Your task to perform on an android device: toggle translation in the chrome app Image 0: 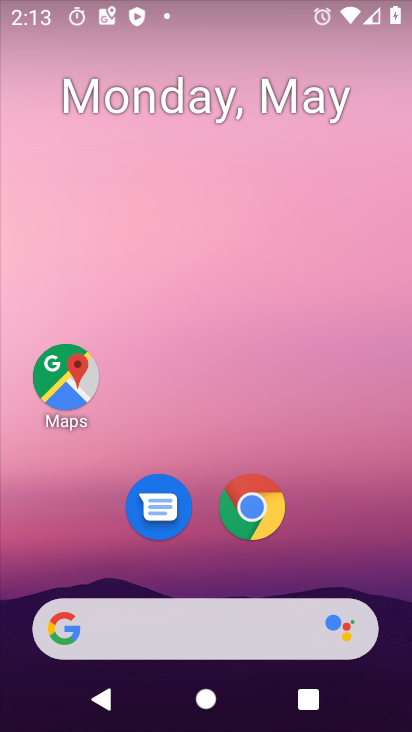
Step 0: click (250, 507)
Your task to perform on an android device: toggle translation in the chrome app Image 1: 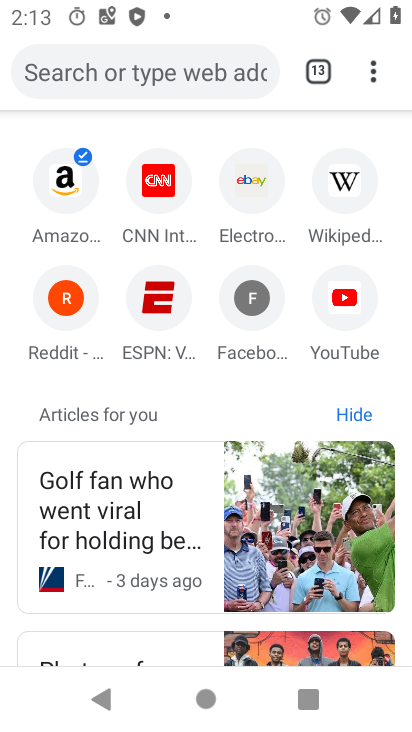
Step 1: click (374, 78)
Your task to perform on an android device: toggle translation in the chrome app Image 2: 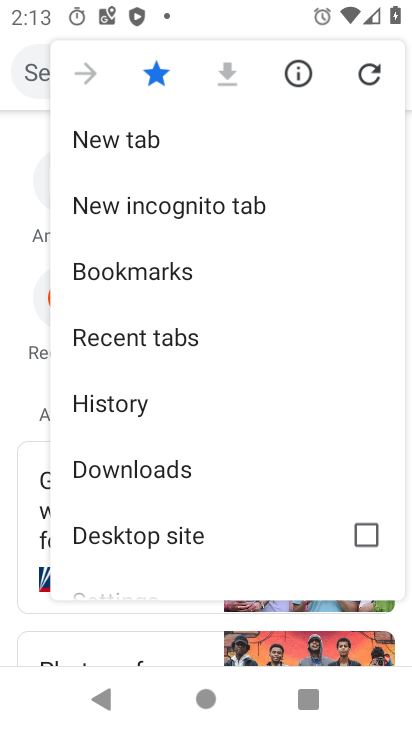
Step 2: drag from (128, 556) to (135, 71)
Your task to perform on an android device: toggle translation in the chrome app Image 3: 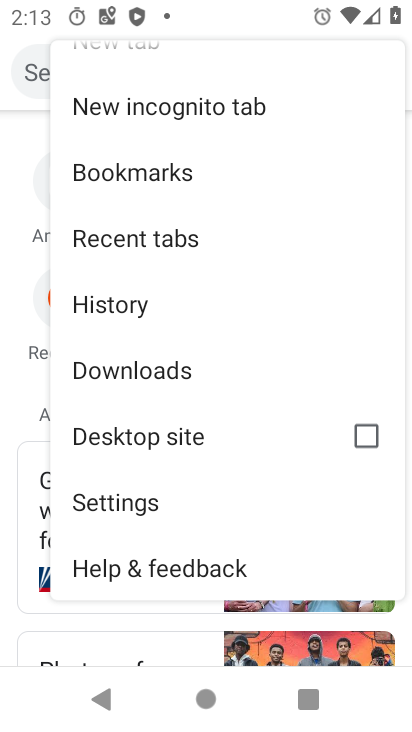
Step 3: click (126, 505)
Your task to perform on an android device: toggle translation in the chrome app Image 4: 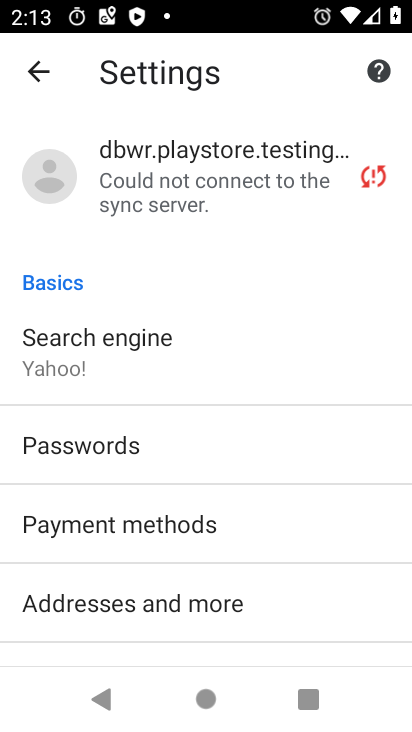
Step 4: drag from (147, 538) to (158, 13)
Your task to perform on an android device: toggle translation in the chrome app Image 5: 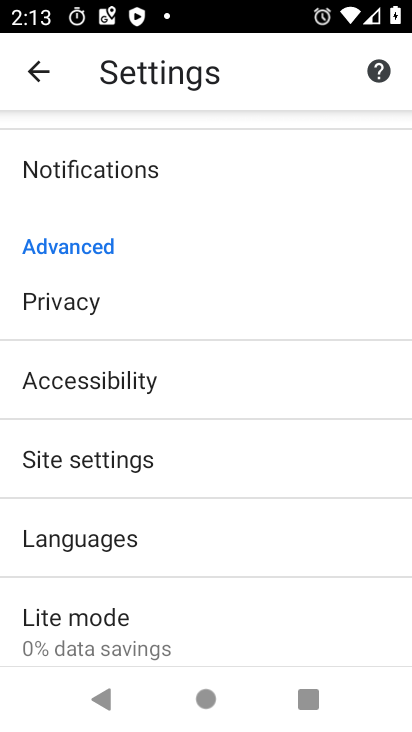
Step 5: drag from (97, 618) to (101, 222)
Your task to perform on an android device: toggle translation in the chrome app Image 6: 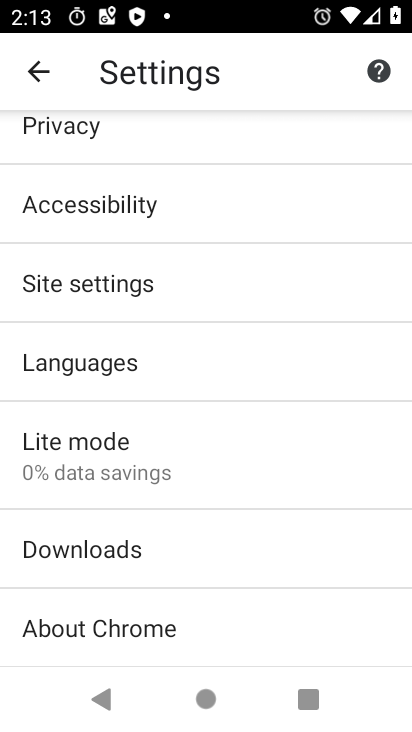
Step 6: click (69, 364)
Your task to perform on an android device: toggle translation in the chrome app Image 7: 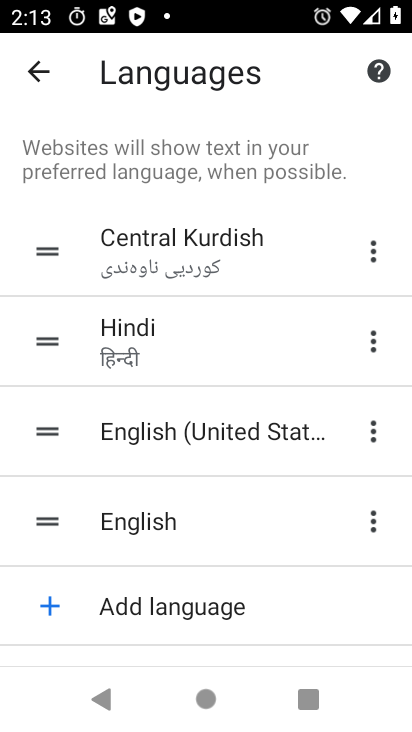
Step 7: drag from (172, 644) to (167, 182)
Your task to perform on an android device: toggle translation in the chrome app Image 8: 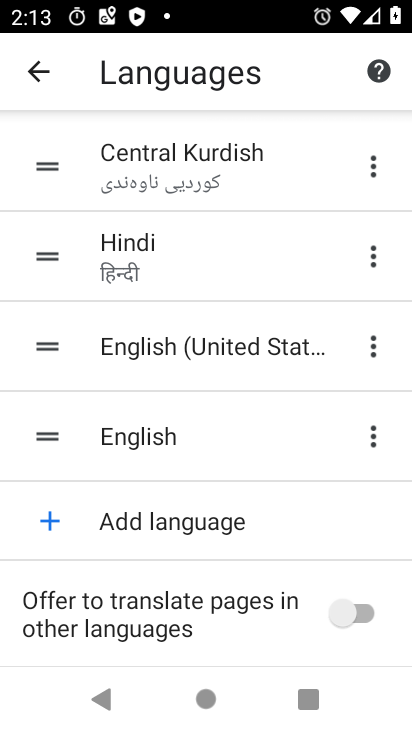
Step 8: click (357, 609)
Your task to perform on an android device: toggle translation in the chrome app Image 9: 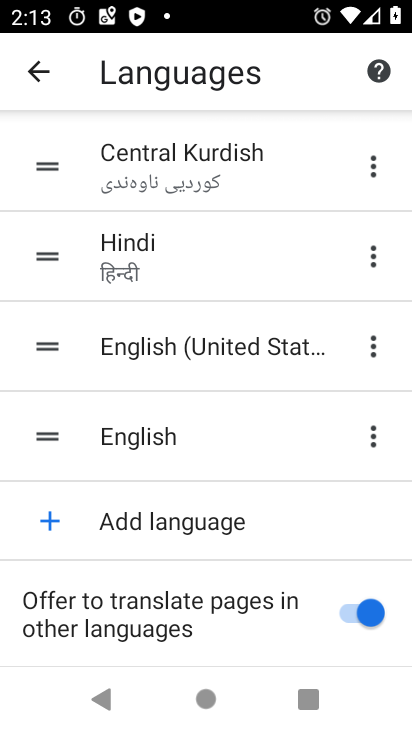
Step 9: task complete